Your task to perform on an android device: Open Amazon Image 0: 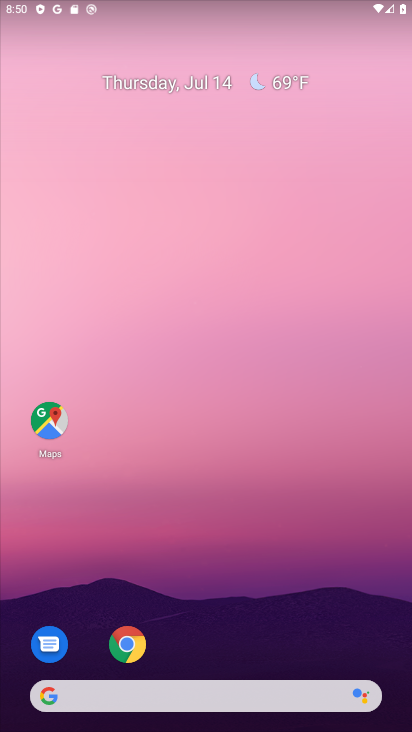
Step 0: click (127, 638)
Your task to perform on an android device: Open Amazon Image 1: 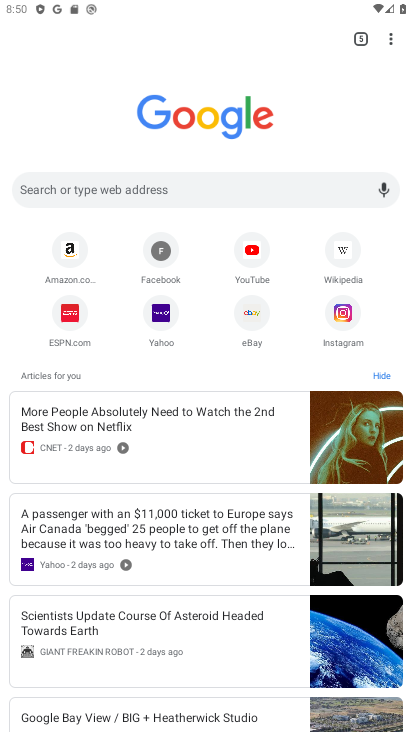
Step 1: click (71, 248)
Your task to perform on an android device: Open Amazon Image 2: 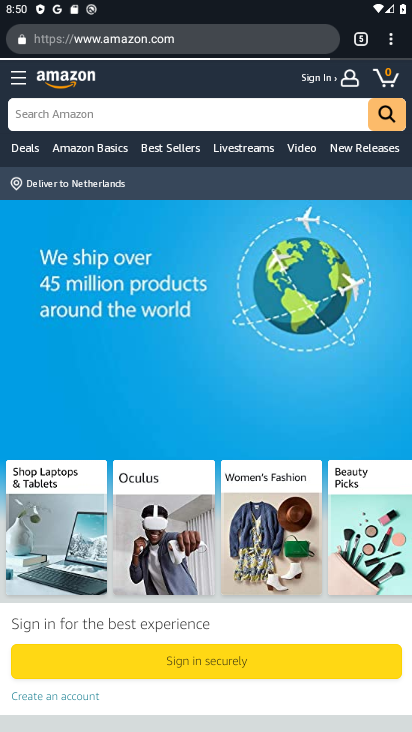
Step 2: task complete